Your task to perform on an android device: What time is it in Tokyo? Image 0: 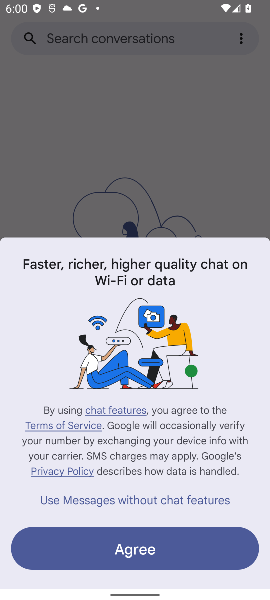
Step 0: click (172, 548)
Your task to perform on an android device: What time is it in Tokyo? Image 1: 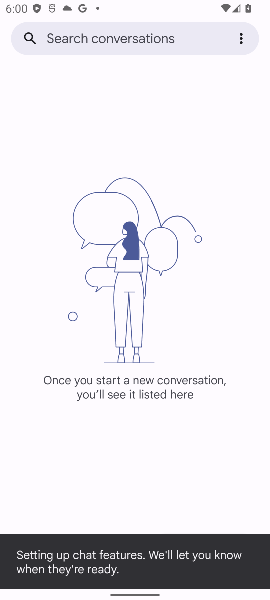
Step 1: press back button
Your task to perform on an android device: What time is it in Tokyo? Image 2: 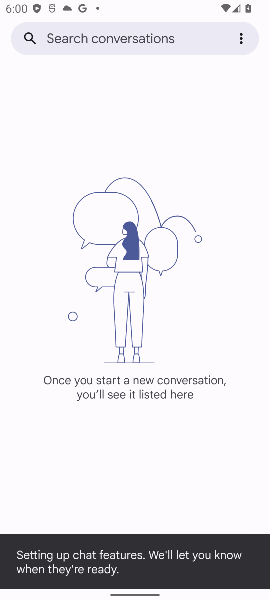
Step 2: press home button
Your task to perform on an android device: What time is it in Tokyo? Image 3: 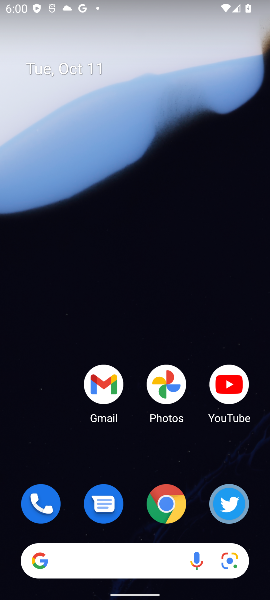
Step 3: click (99, 561)
Your task to perform on an android device: What time is it in Tokyo? Image 4: 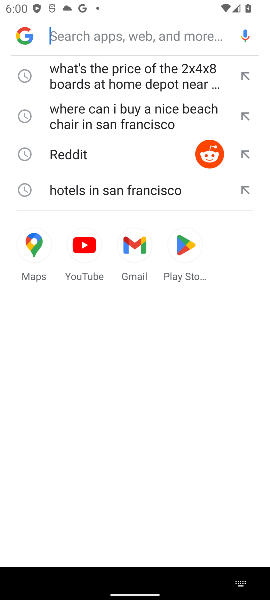
Step 4: click (76, 32)
Your task to perform on an android device: What time is it in Tokyo? Image 5: 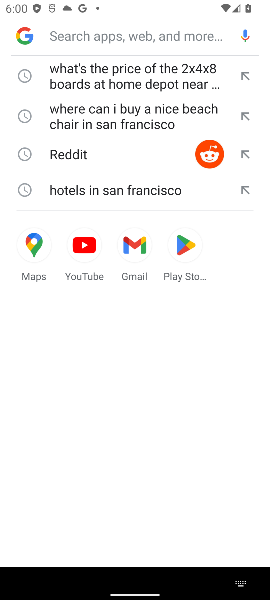
Step 5: type "What time is it in Tokyo?"
Your task to perform on an android device: What time is it in Tokyo? Image 6: 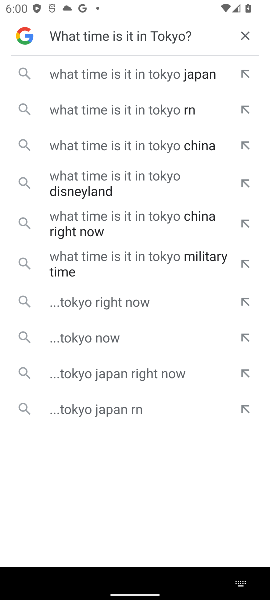
Step 6: click (151, 71)
Your task to perform on an android device: What time is it in Tokyo? Image 7: 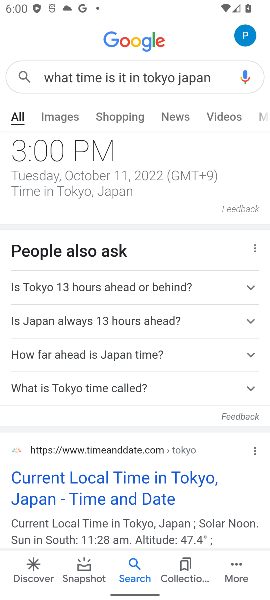
Step 7: task complete